Your task to perform on an android device: toggle airplane mode Image 0: 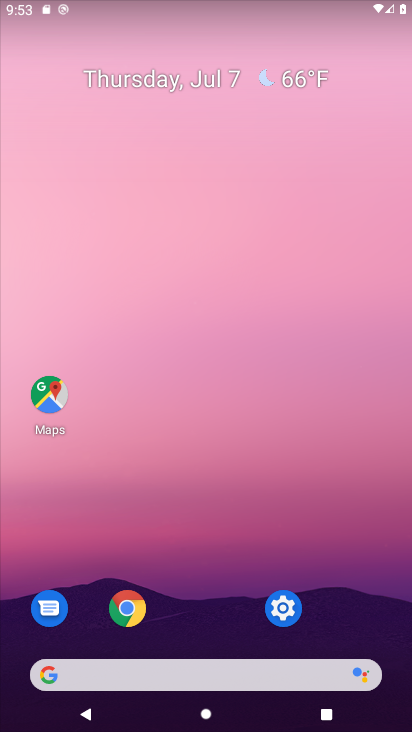
Step 0: click (278, 612)
Your task to perform on an android device: toggle airplane mode Image 1: 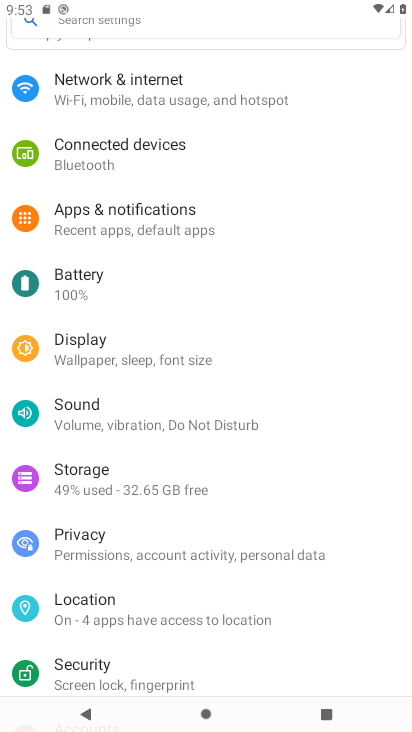
Step 1: click (139, 107)
Your task to perform on an android device: toggle airplane mode Image 2: 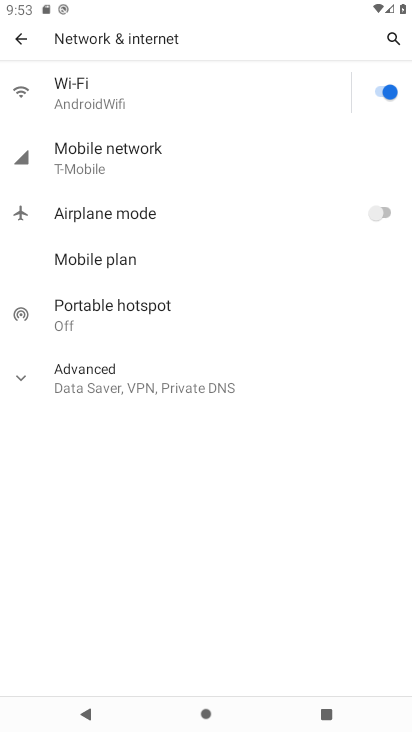
Step 2: click (389, 218)
Your task to perform on an android device: toggle airplane mode Image 3: 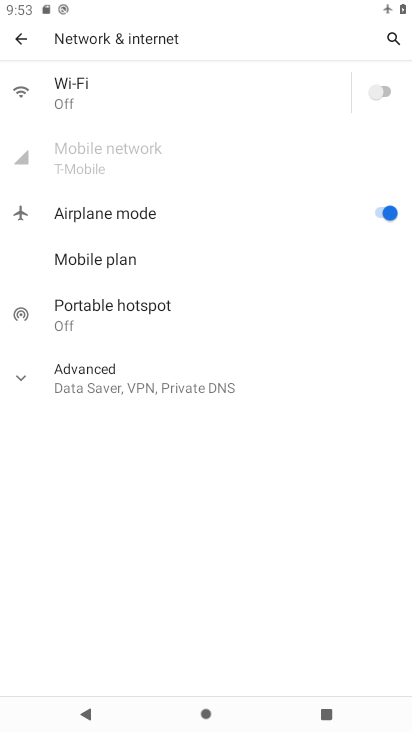
Step 3: click (376, 219)
Your task to perform on an android device: toggle airplane mode Image 4: 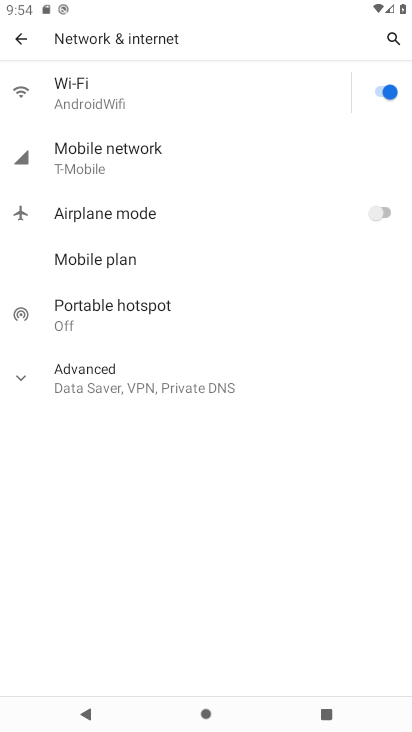
Step 4: task complete